Your task to perform on an android device: toggle javascript in the chrome app Image 0: 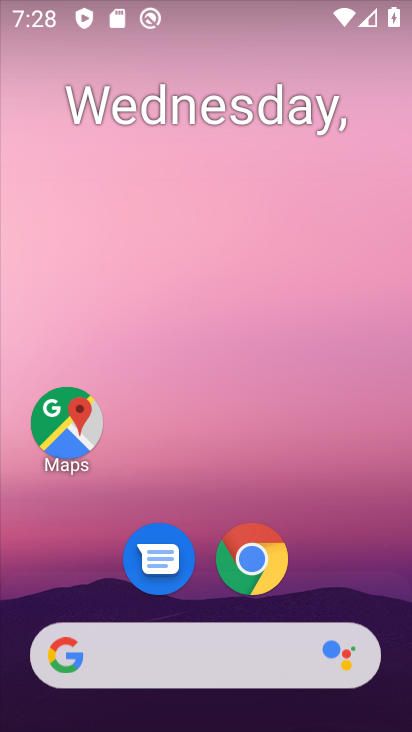
Step 0: click (261, 555)
Your task to perform on an android device: toggle javascript in the chrome app Image 1: 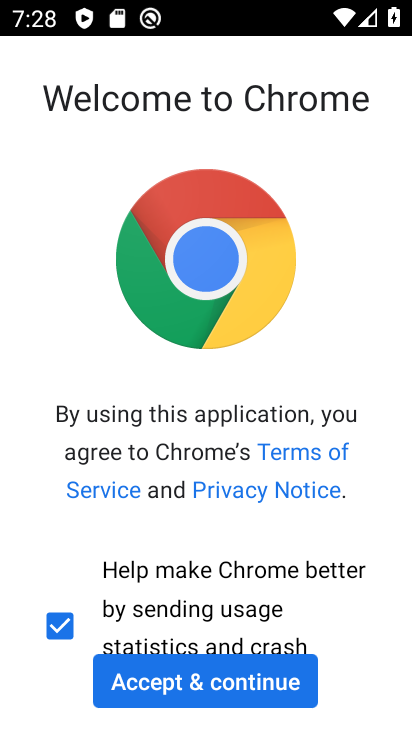
Step 1: click (227, 687)
Your task to perform on an android device: toggle javascript in the chrome app Image 2: 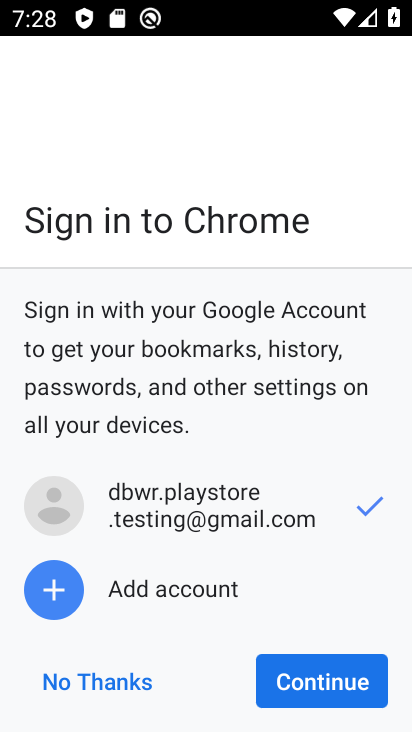
Step 2: click (358, 670)
Your task to perform on an android device: toggle javascript in the chrome app Image 3: 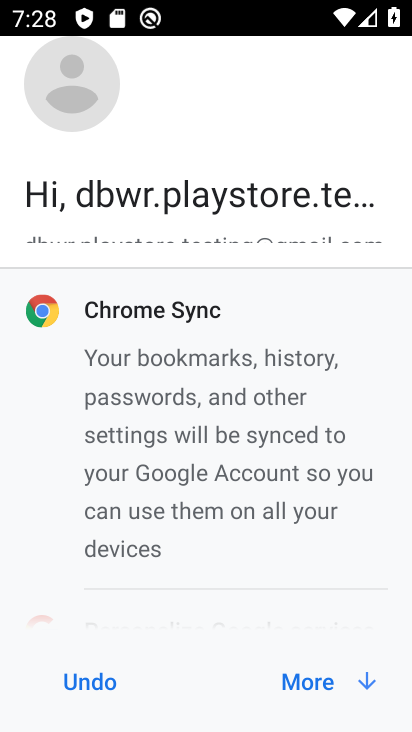
Step 3: click (358, 670)
Your task to perform on an android device: toggle javascript in the chrome app Image 4: 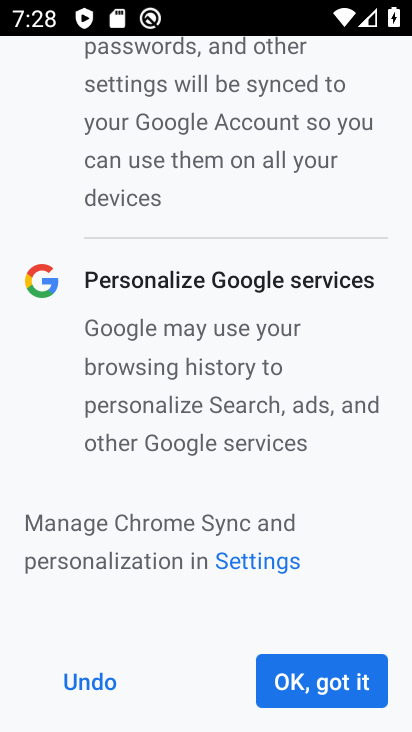
Step 4: click (358, 670)
Your task to perform on an android device: toggle javascript in the chrome app Image 5: 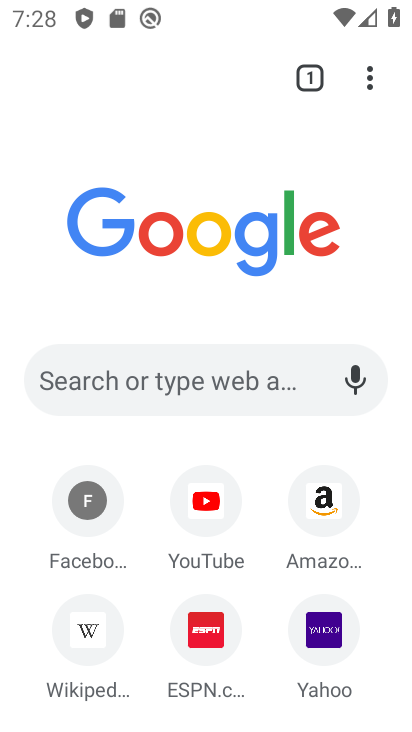
Step 5: click (366, 80)
Your task to perform on an android device: toggle javascript in the chrome app Image 6: 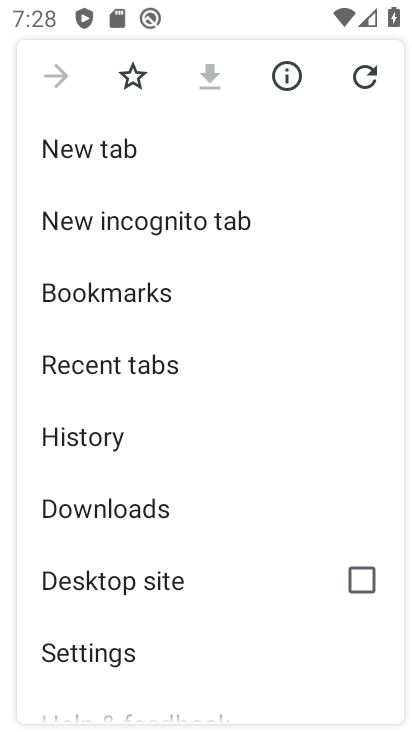
Step 6: click (62, 646)
Your task to perform on an android device: toggle javascript in the chrome app Image 7: 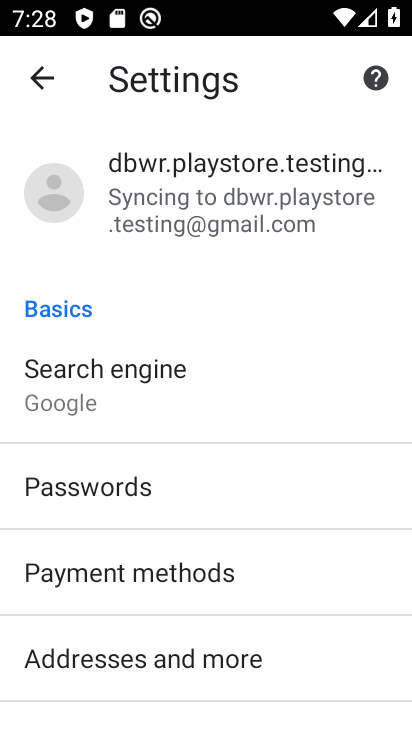
Step 7: drag from (62, 646) to (71, 333)
Your task to perform on an android device: toggle javascript in the chrome app Image 8: 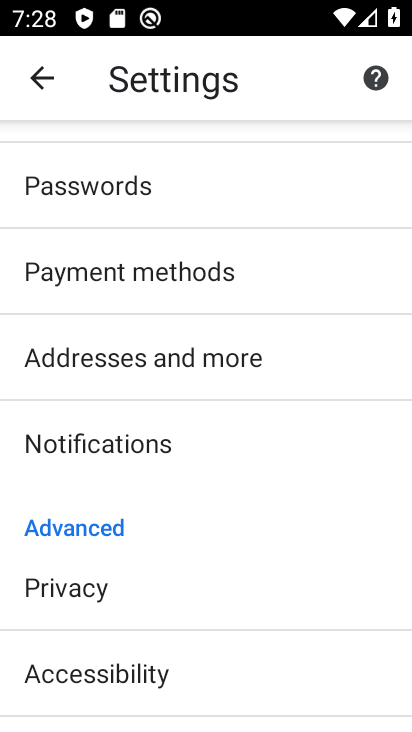
Step 8: drag from (149, 559) to (82, 94)
Your task to perform on an android device: toggle javascript in the chrome app Image 9: 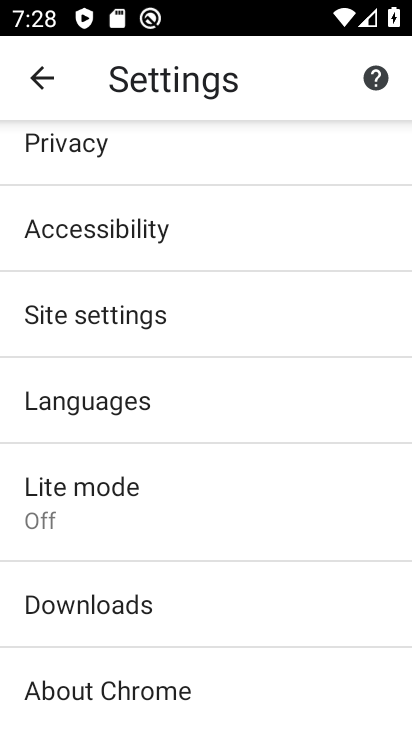
Step 9: click (134, 287)
Your task to perform on an android device: toggle javascript in the chrome app Image 10: 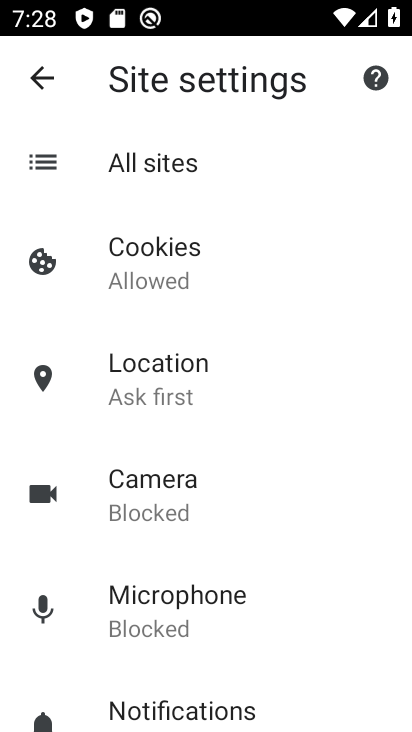
Step 10: drag from (126, 461) to (92, 154)
Your task to perform on an android device: toggle javascript in the chrome app Image 11: 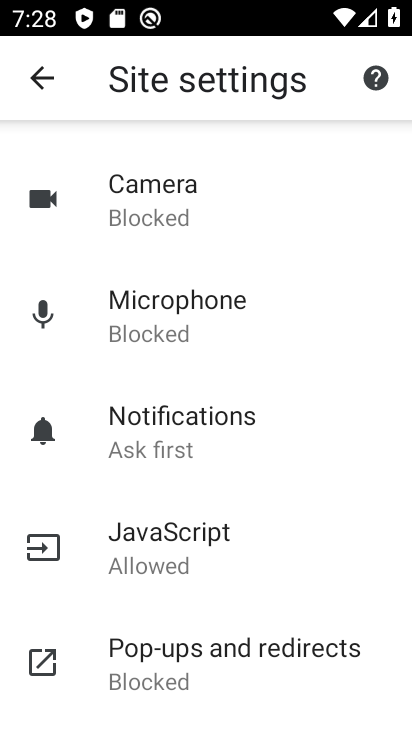
Step 11: click (142, 586)
Your task to perform on an android device: toggle javascript in the chrome app Image 12: 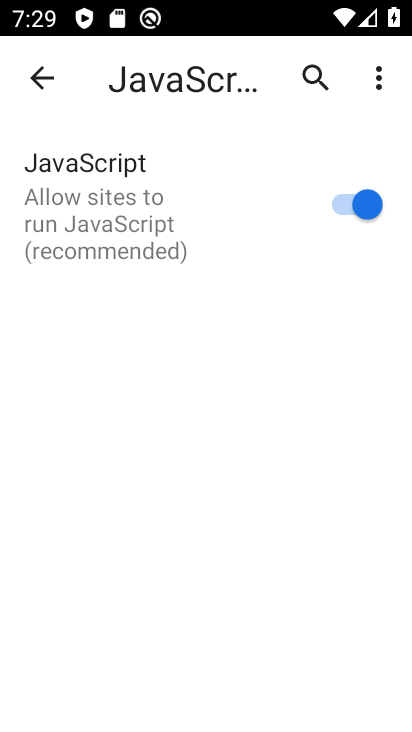
Step 12: click (338, 192)
Your task to perform on an android device: toggle javascript in the chrome app Image 13: 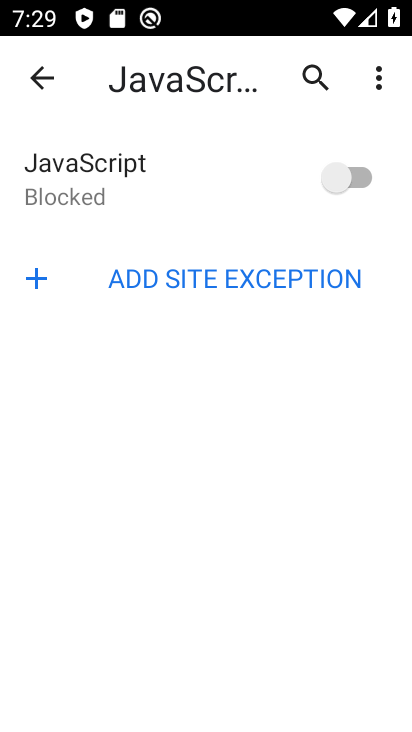
Step 13: task complete